Your task to perform on an android device: Open Maps and search for coffee Image 0: 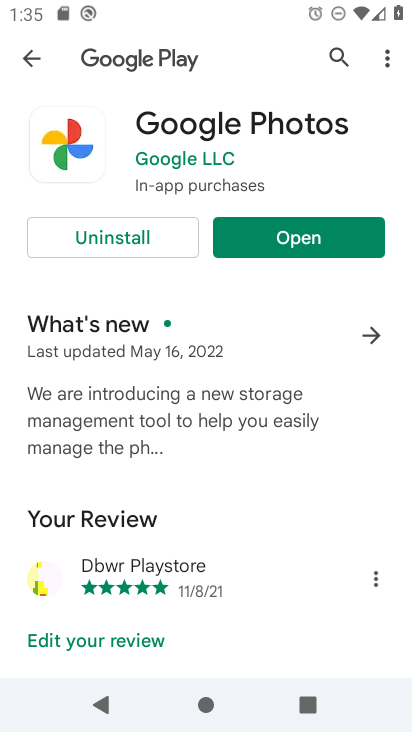
Step 0: press home button
Your task to perform on an android device: Open Maps and search for coffee Image 1: 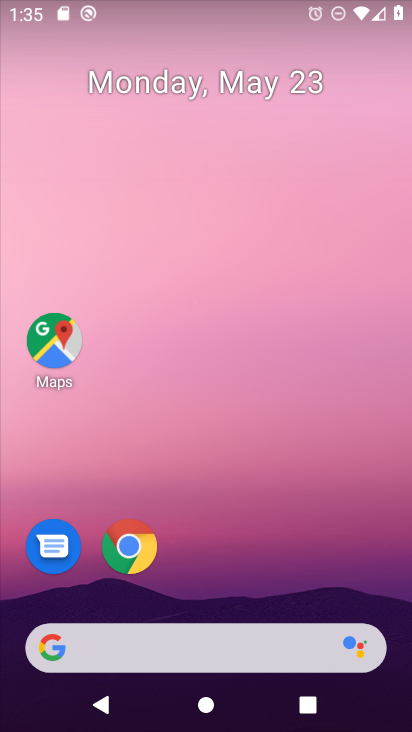
Step 1: drag from (158, 558) to (267, 35)
Your task to perform on an android device: Open Maps and search for coffee Image 2: 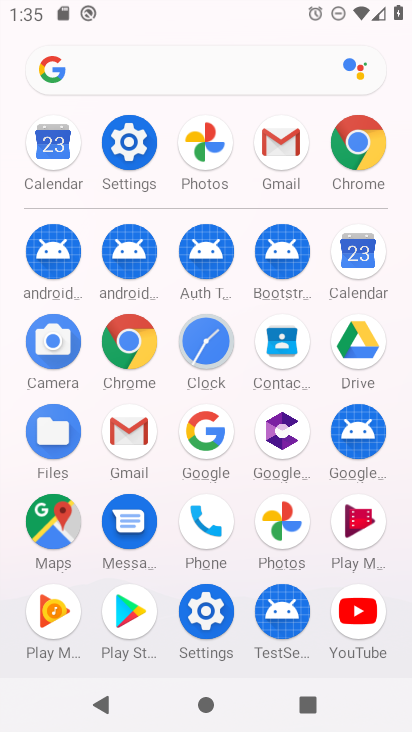
Step 2: drag from (74, 585) to (71, 489)
Your task to perform on an android device: Open Maps and search for coffee Image 3: 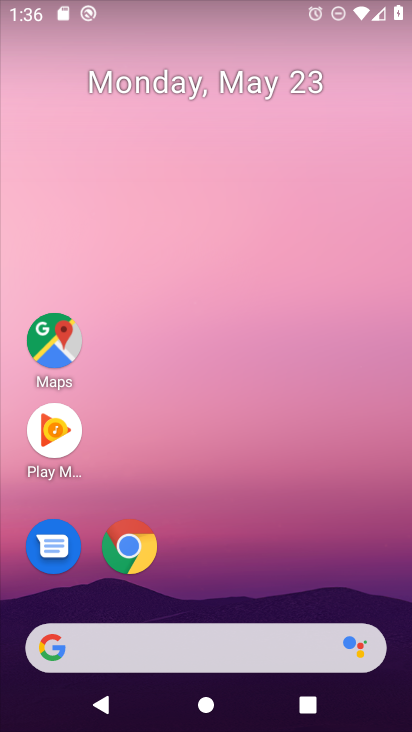
Step 3: click (50, 347)
Your task to perform on an android device: Open Maps and search for coffee Image 4: 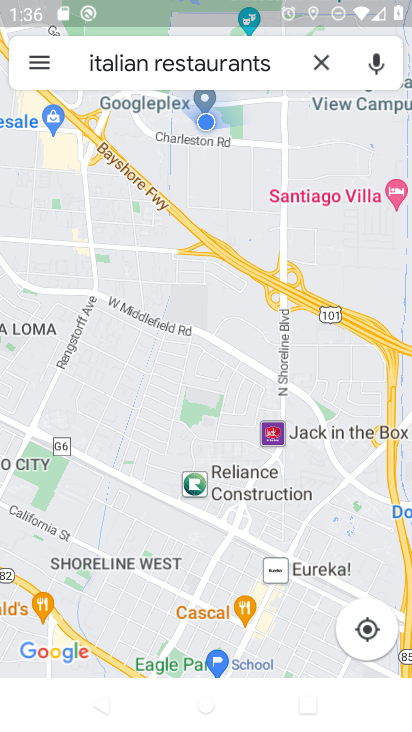
Step 4: click (330, 70)
Your task to perform on an android device: Open Maps and search for coffee Image 5: 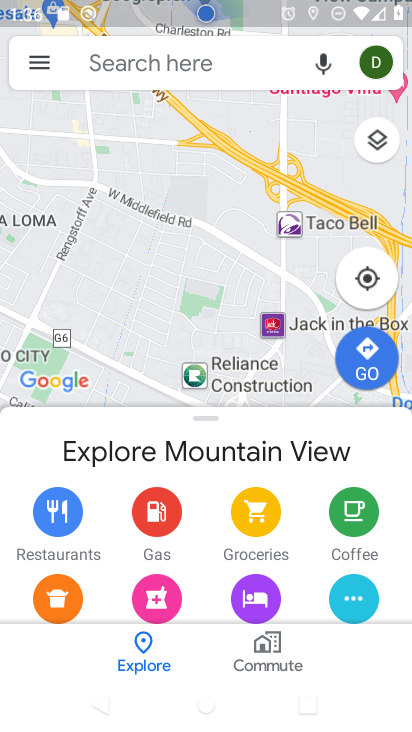
Step 5: click (178, 74)
Your task to perform on an android device: Open Maps and search for coffee Image 6: 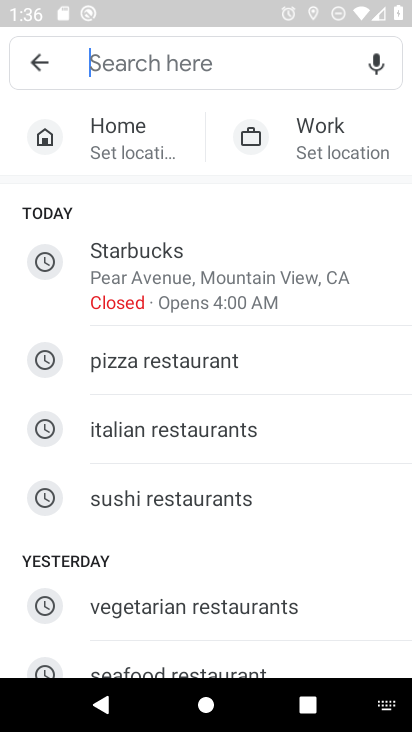
Step 6: drag from (140, 562) to (204, 173)
Your task to perform on an android device: Open Maps and search for coffee Image 7: 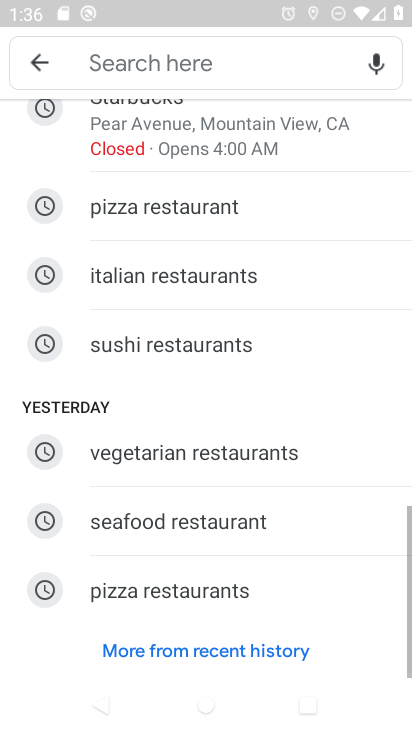
Step 7: drag from (204, 175) to (166, 555)
Your task to perform on an android device: Open Maps and search for coffee Image 8: 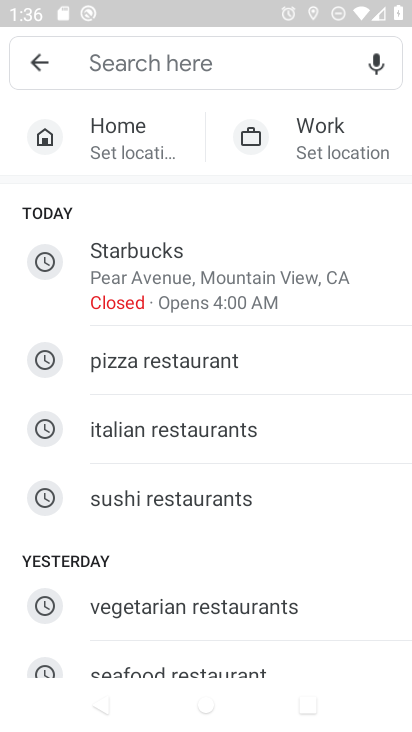
Step 8: click (182, 68)
Your task to perform on an android device: Open Maps and search for coffee Image 9: 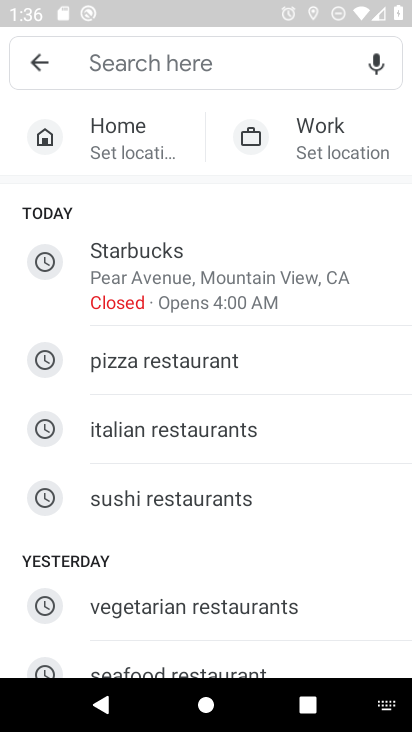
Step 9: type "coffee"
Your task to perform on an android device: Open Maps and search for coffee Image 10: 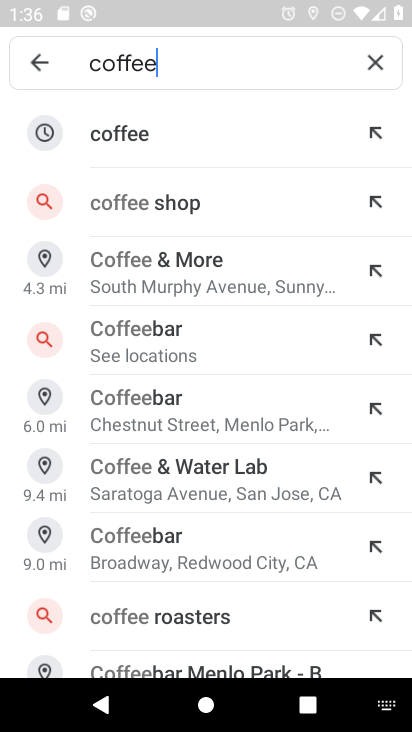
Step 10: click (150, 140)
Your task to perform on an android device: Open Maps and search for coffee Image 11: 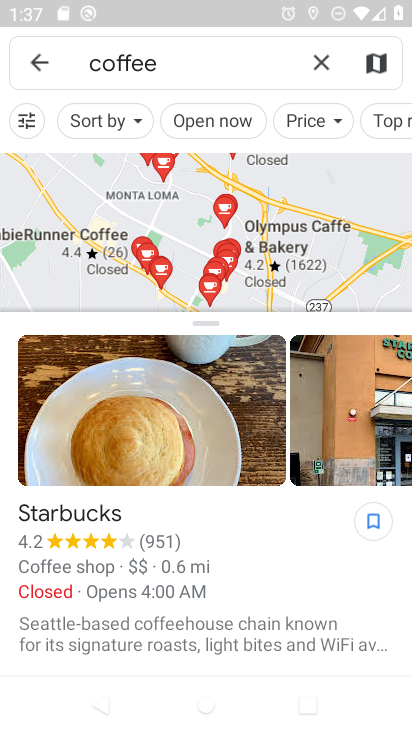
Step 11: task complete